Your task to perform on an android device: open app "Microsoft Authenticator" (install if not already installed) and enter user name: "Cornell@yahoo.com" and password: "bothersome" Image 0: 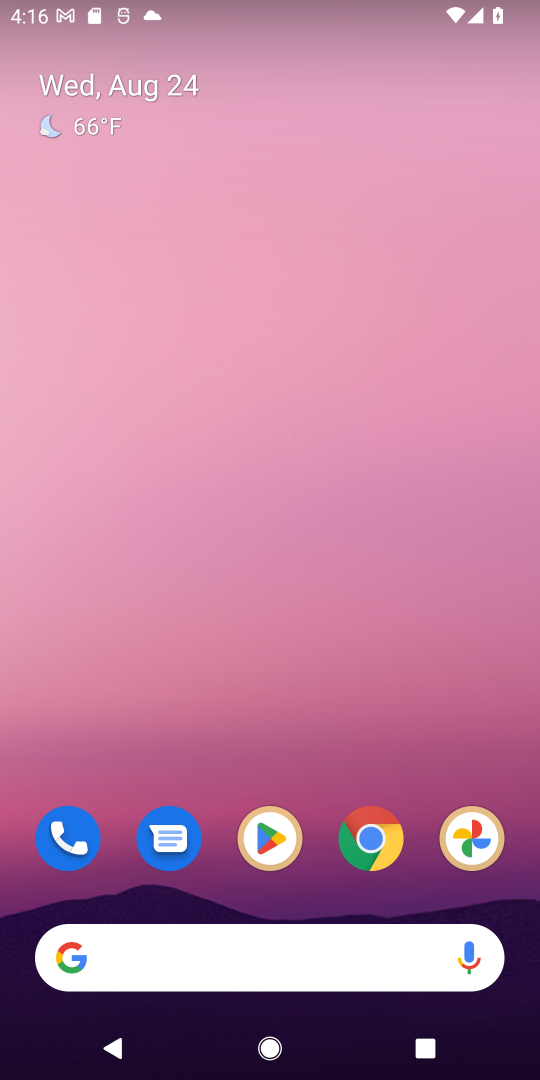
Step 0: press home button
Your task to perform on an android device: open app "Microsoft Authenticator" (install if not already installed) and enter user name: "Cornell@yahoo.com" and password: "bothersome" Image 1: 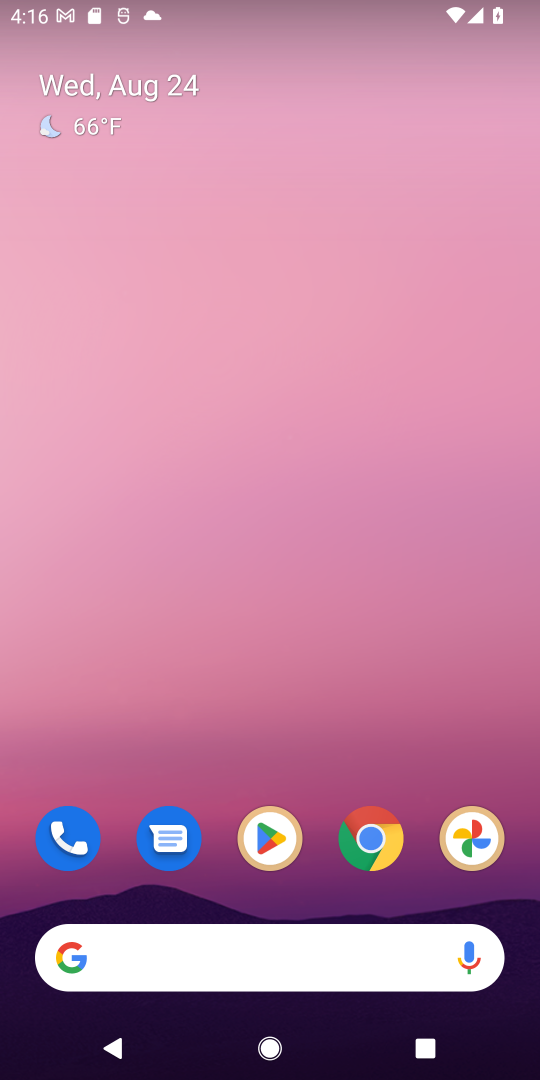
Step 1: click (262, 834)
Your task to perform on an android device: open app "Microsoft Authenticator" (install if not already installed) and enter user name: "Cornell@yahoo.com" and password: "bothersome" Image 2: 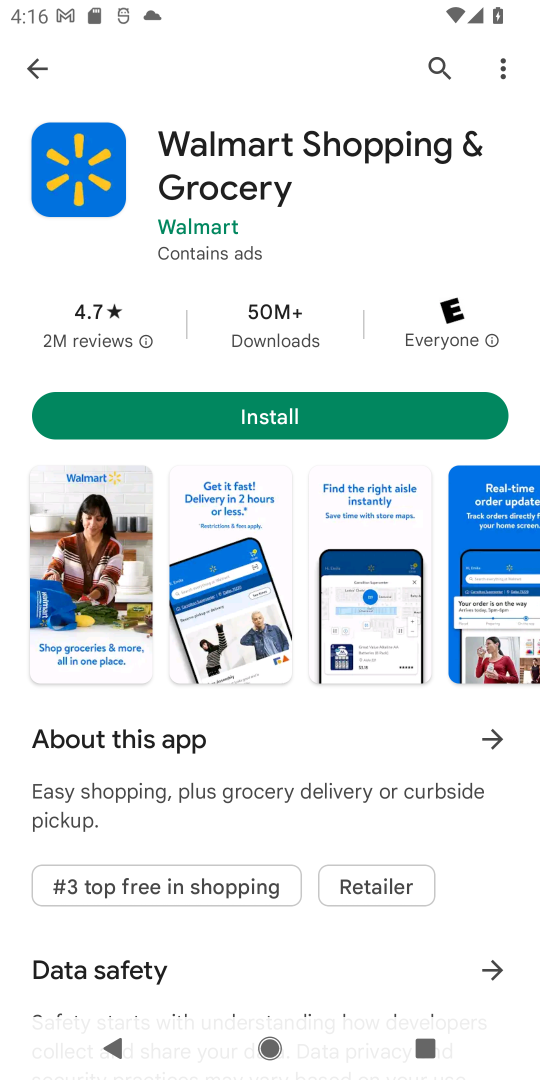
Step 2: click (431, 66)
Your task to perform on an android device: open app "Microsoft Authenticator" (install if not already installed) and enter user name: "Cornell@yahoo.com" and password: "bothersome" Image 3: 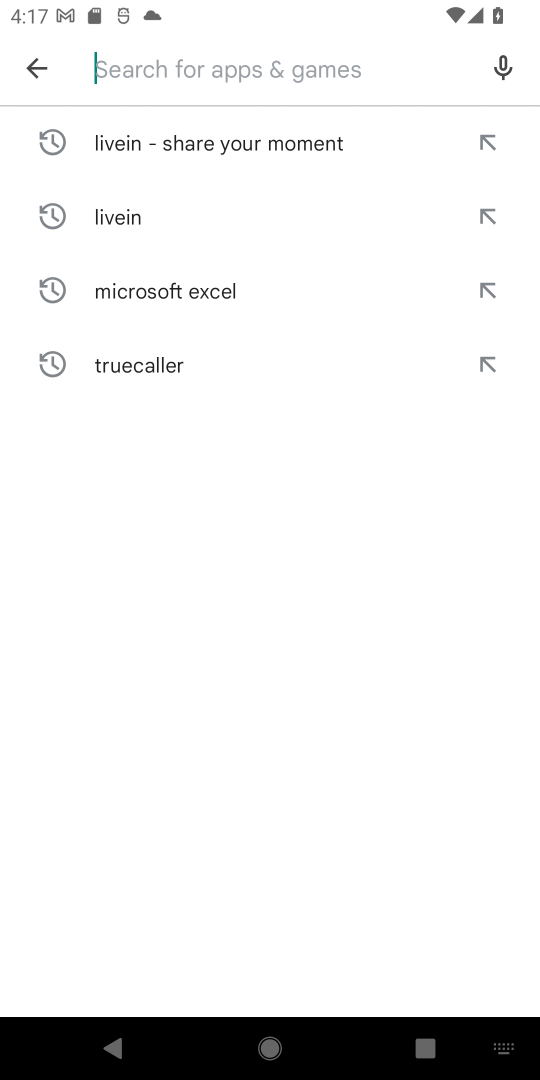
Step 3: type "Walmart Shopping & Grocery"
Your task to perform on an android device: open app "Microsoft Authenticator" (install if not already installed) and enter user name: "Cornell@yahoo.com" and password: "bothersome" Image 4: 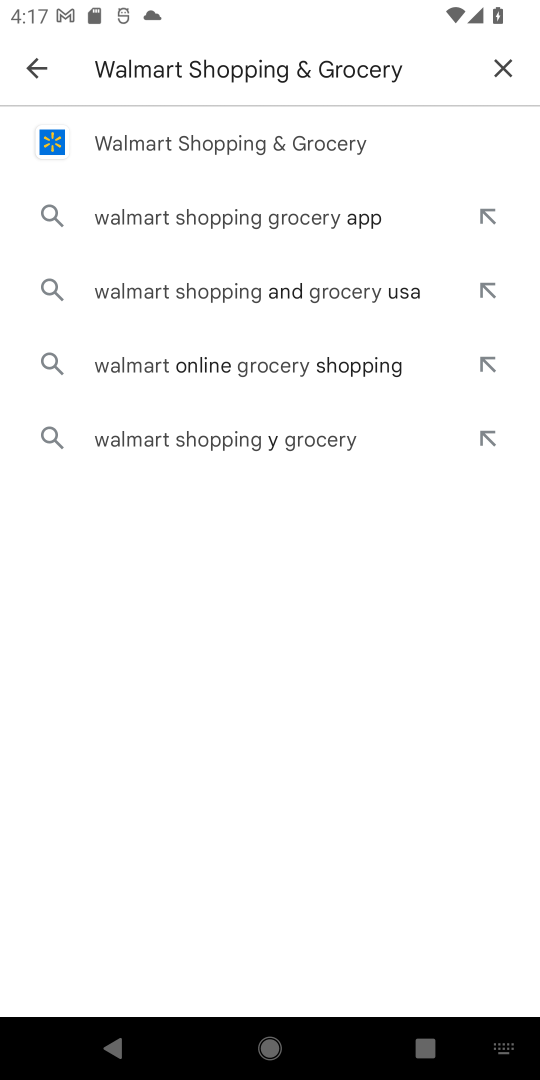
Step 4: click (504, 74)
Your task to perform on an android device: open app "Microsoft Authenticator" (install if not already installed) and enter user name: "Cornell@yahoo.com" and password: "bothersome" Image 5: 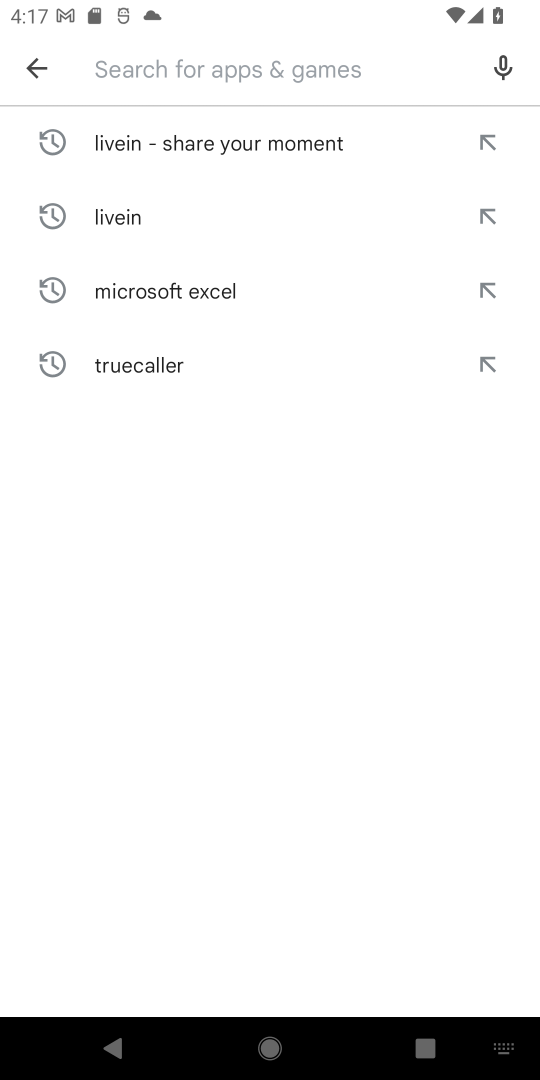
Step 5: type "Microsoft Authenticator"
Your task to perform on an android device: open app "Microsoft Authenticator" (install if not already installed) and enter user name: "Cornell@yahoo.com" and password: "bothersome" Image 6: 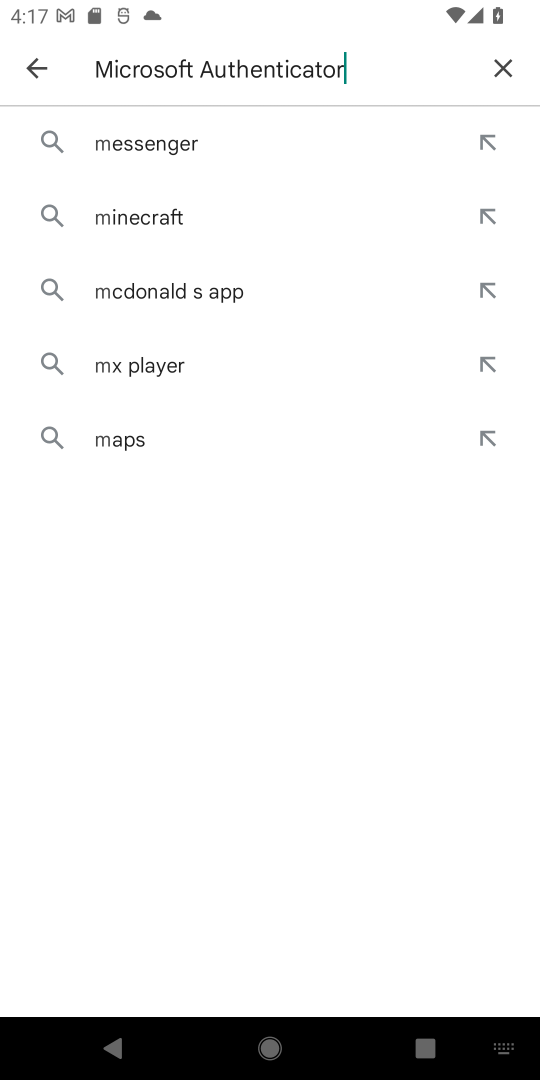
Step 6: type ""
Your task to perform on an android device: open app "Microsoft Authenticator" (install if not already installed) and enter user name: "Cornell@yahoo.com" and password: "bothersome" Image 7: 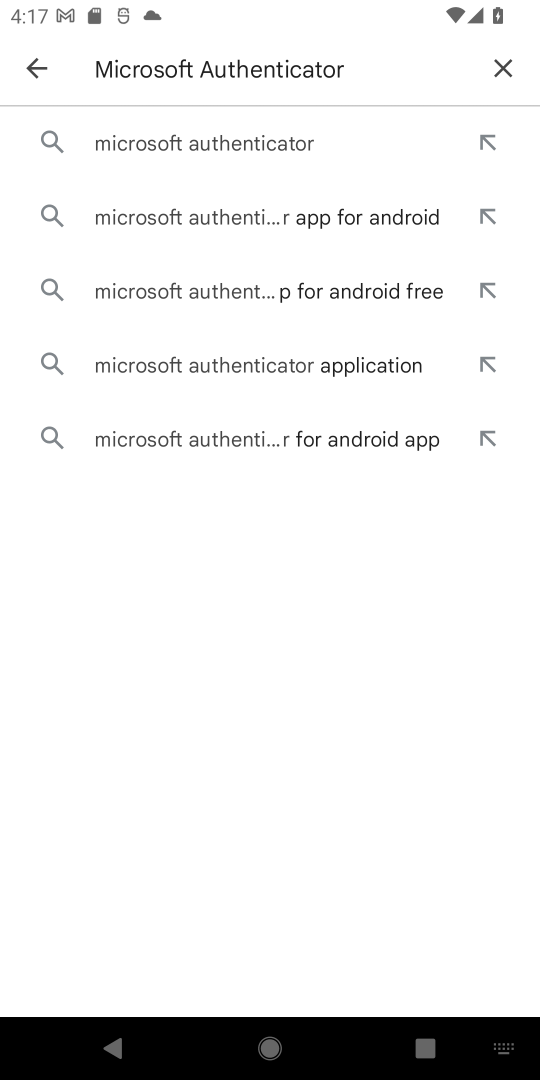
Step 7: click (262, 142)
Your task to perform on an android device: open app "Microsoft Authenticator" (install if not already installed) and enter user name: "Cornell@yahoo.com" and password: "bothersome" Image 8: 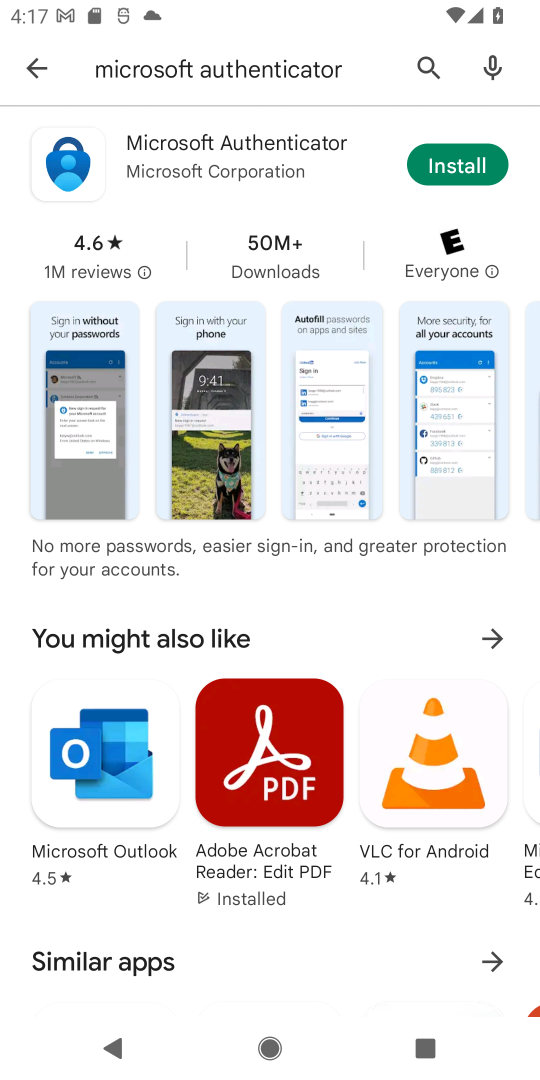
Step 8: click (455, 165)
Your task to perform on an android device: open app "Microsoft Authenticator" (install if not already installed) and enter user name: "Cornell@yahoo.com" and password: "bothersome" Image 9: 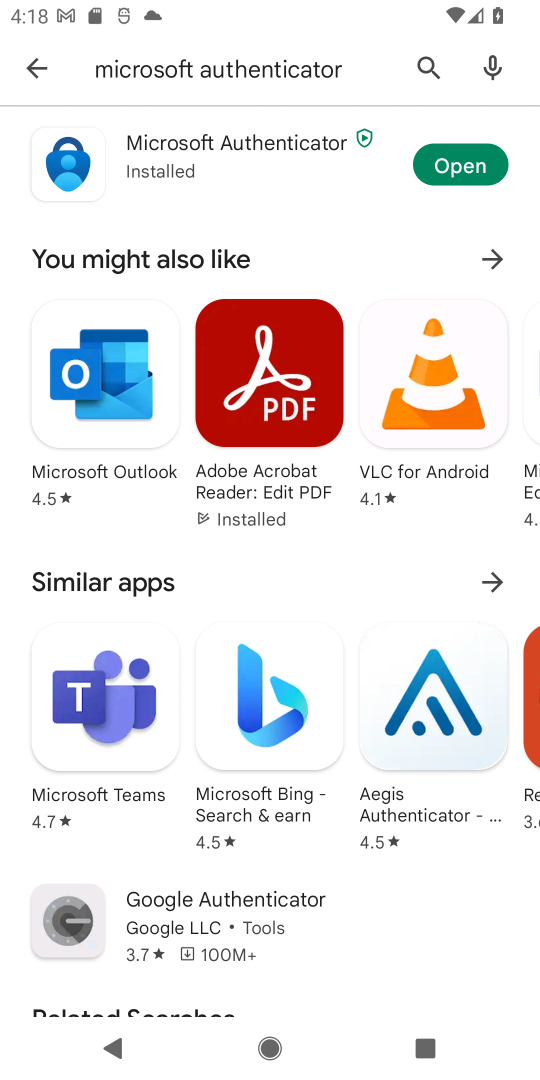
Step 9: click (462, 168)
Your task to perform on an android device: open app "Microsoft Authenticator" (install if not already installed) and enter user name: "Cornell@yahoo.com" and password: "bothersome" Image 10: 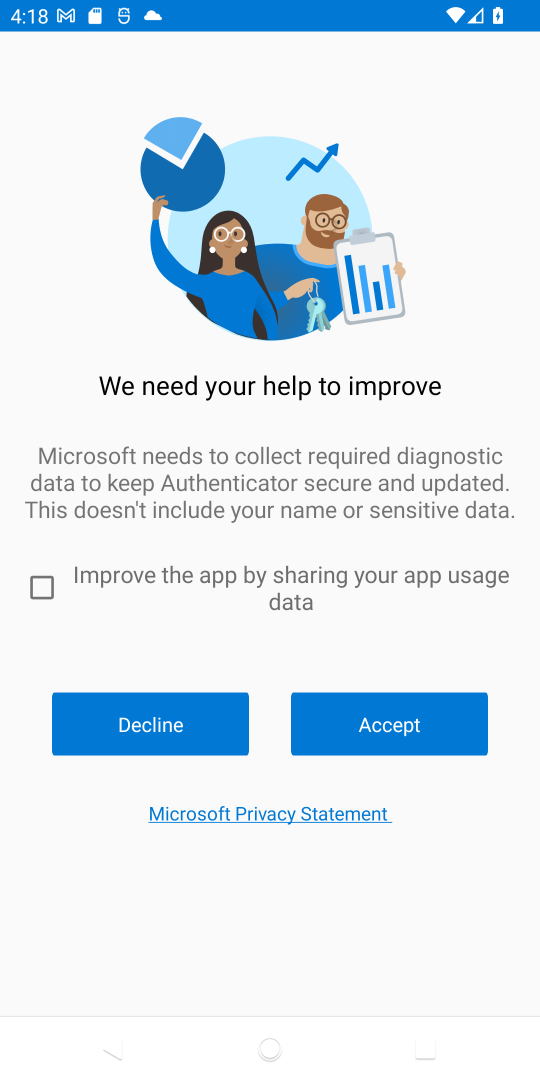
Step 10: click (40, 590)
Your task to perform on an android device: open app "Microsoft Authenticator" (install if not already installed) and enter user name: "Cornell@yahoo.com" and password: "bothersome" Image 11: 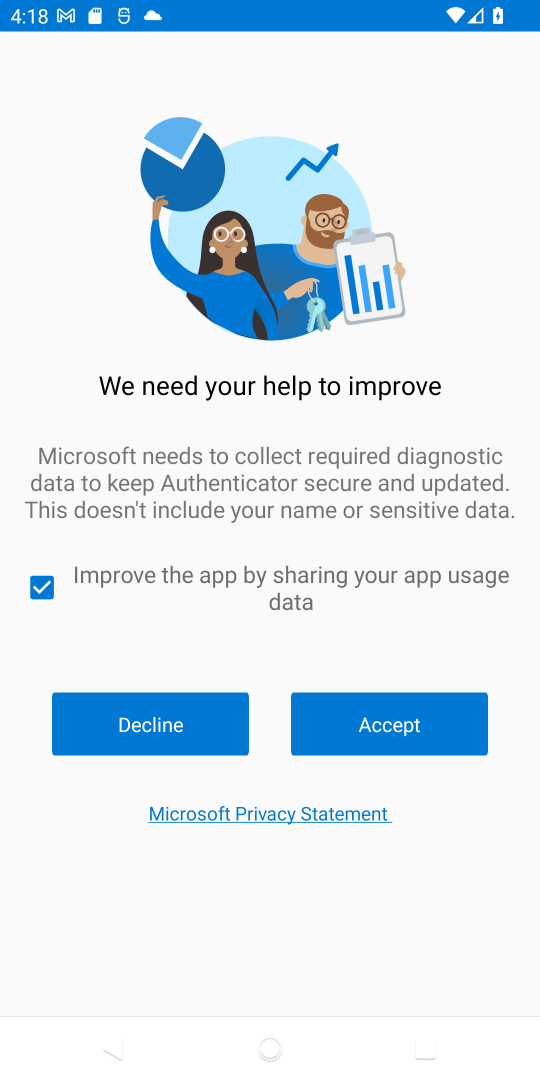
Step 11: click (419, 724)
Your task to perform on an android device: open app "Microsoft Authenticator" (install if not already installed) and enter user name: "Cornell@yahoo.com" and password: "bothersome" Image 12: 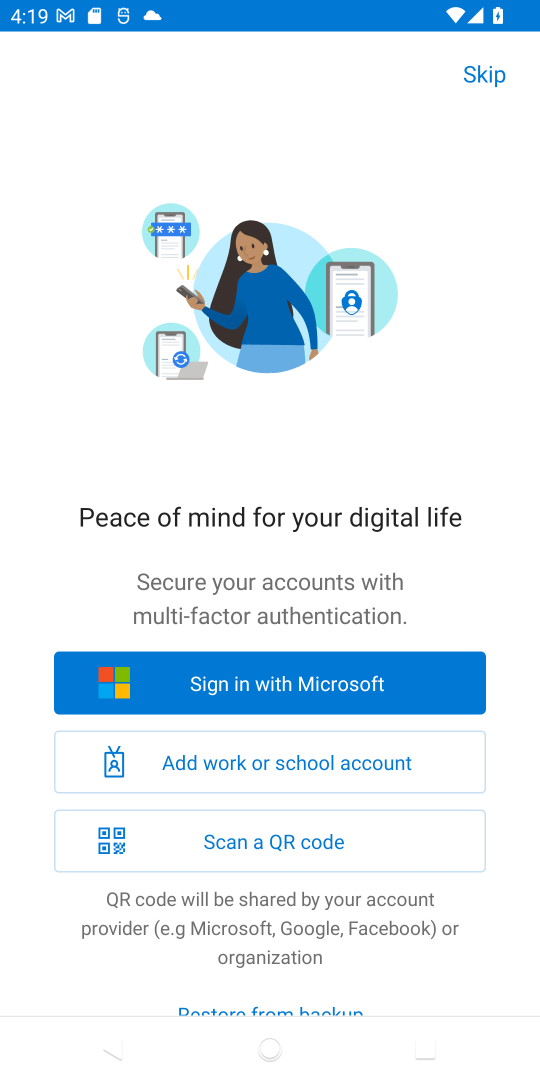
Step 12: click (493, 70)
Your task to perform on an android device: open app "Microsoft Authenticator" (install if not already installed) and enter user name: "Cornell@yahoo.com" and password: "bothersome" Image 13: 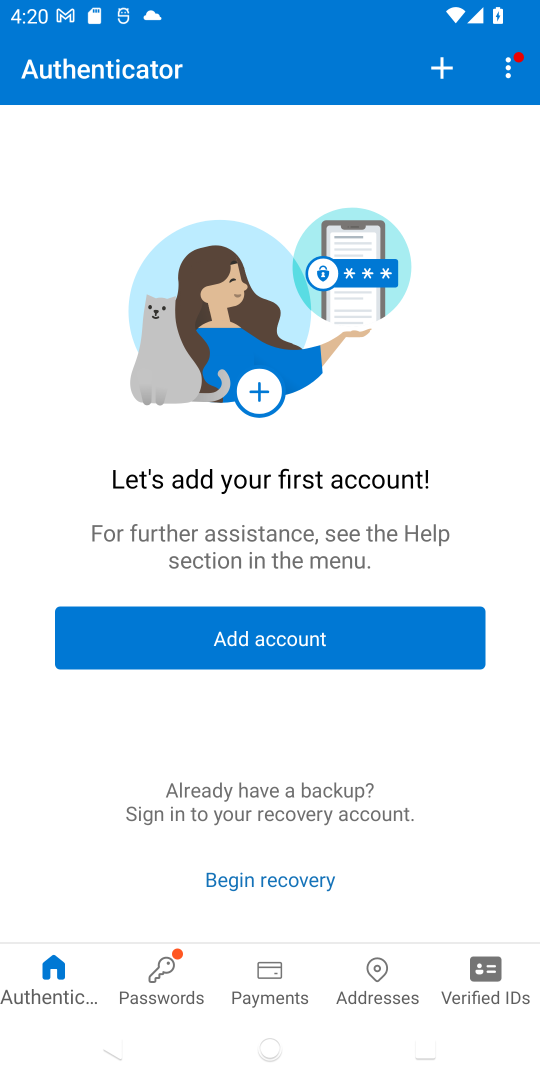
Step 13: click (507, 61)
Your task to perform on an android device: open app "Microsoft Authenticator" (install if not already installed) and enter user name: "Cornell@yahoo.com" and password: "bothersome" Image 14: 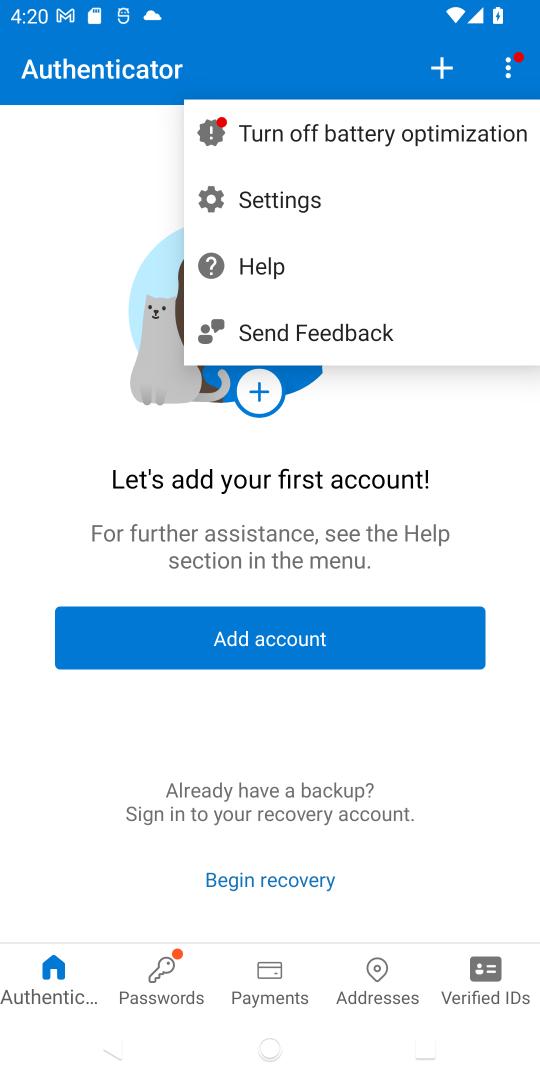
Step 14: task complete